Your task to perform on an android device: delete the emails in spam in the gmail app Image 0: 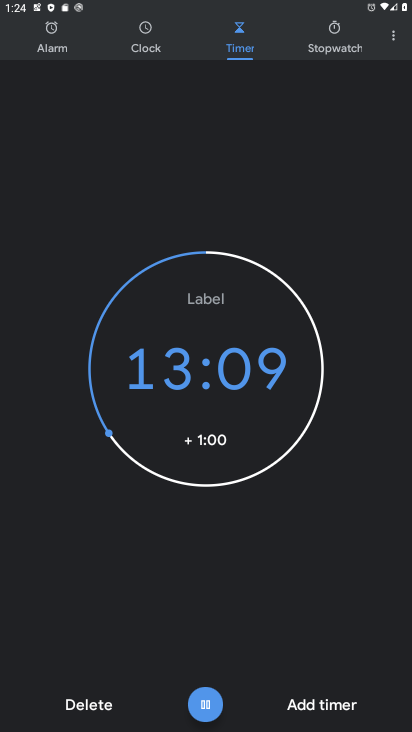
Step 0: press home button
Your task to perform on an android device: delete the emails in spam in the gmail app Image 1: 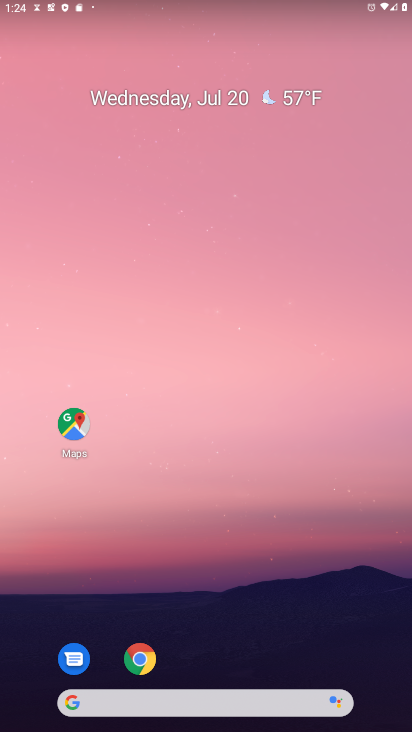
Step 1: drag from (202, 655) to (223, 15)
Your task to perform on an android device: delete the emails in spam in the gmail app Image 2: 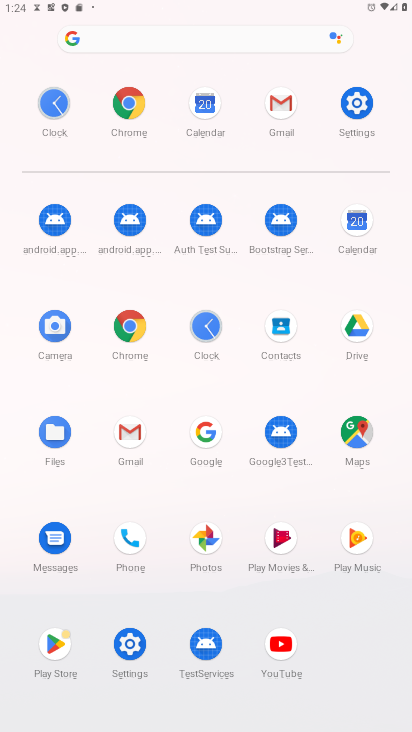
Step 2: click (131, 429)
Your task to perform on an android device: delete the emails in spam in the gmail app Image 3: 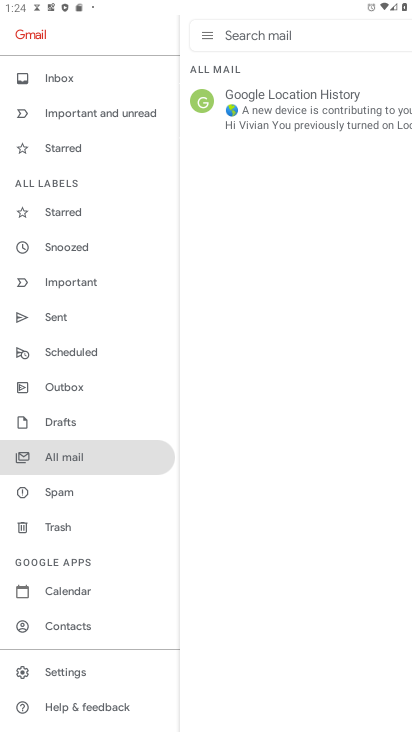
Step 3: click (77, 489)
Your task to perform on an android device: delete the emails in spam in the gmail app Image 4: 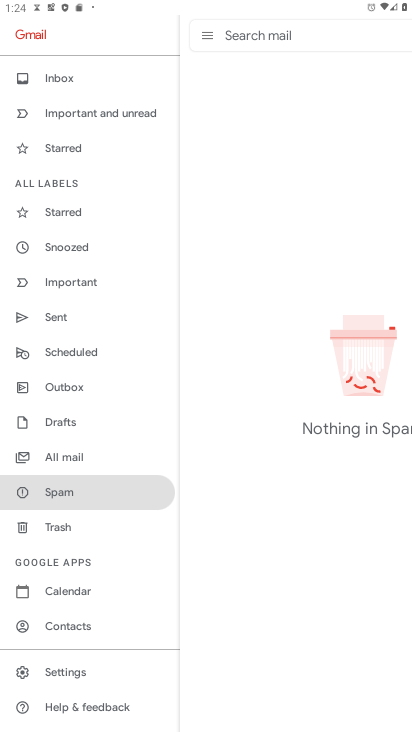
Step 4: task complete